Your task to perform on an android device: change the clock display to show seconds Image 0: 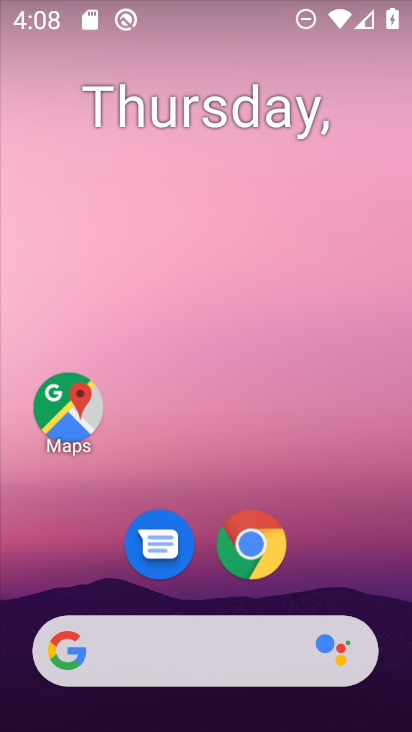
Step 0: drag from (330, 556) to (333, 217)
Your task to perform on an android device: change the clock display to show seconds Image 1: 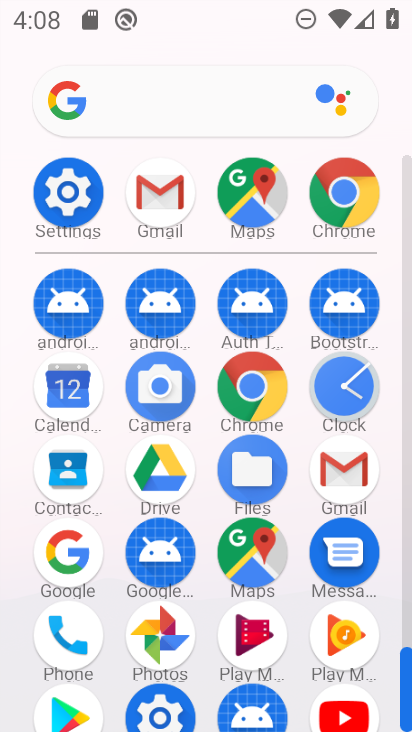
Step 1: click (332, 404)
Your task to perform on an android device: change the clock display to show seconds Image 2: 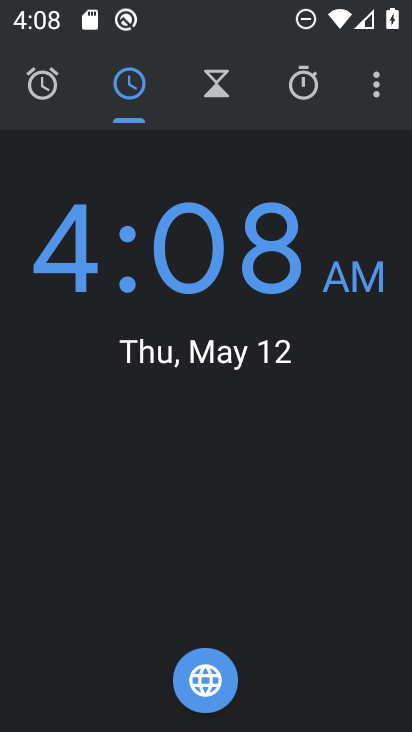
Step 2: click (375, 84)
Your task to perform on an android device: change the clock display to show seconds Image 3: 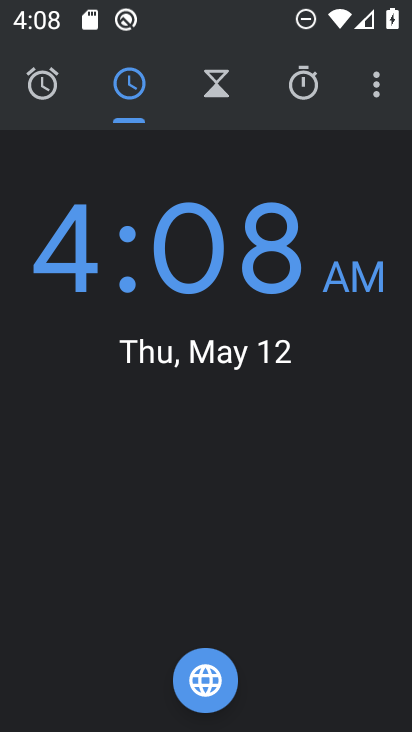
Step 3: click (381, 79)
Your task to perform on an android device: change the clock display to show seconds Image 4: 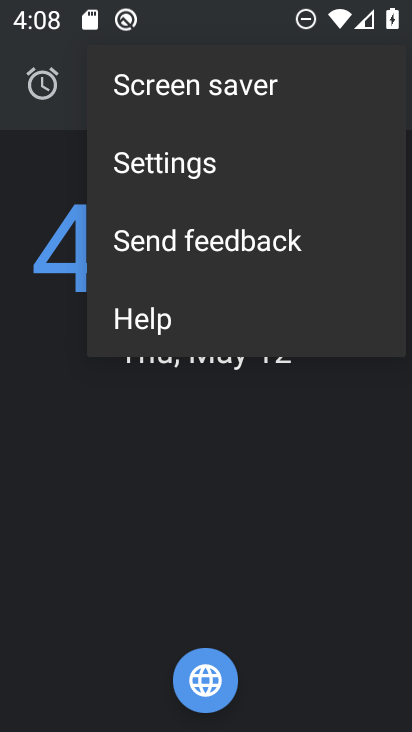
Step 4: click (269, 172)
Your task to perform on an android device: change the clock display to show seconds Image 5: 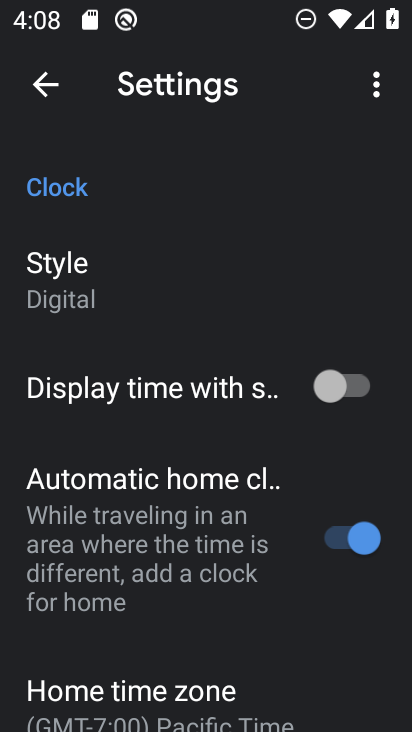
Step 5: click (63, 288)
Your task to perform on an android device: change the clock display to show seconds Image 6: 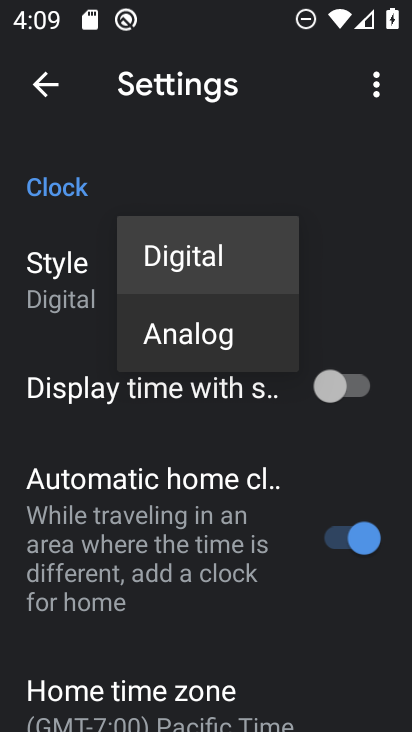
Step 6: click (180, 332)
Your task to perform on an android device: change the clock display to show seconds Image 7: 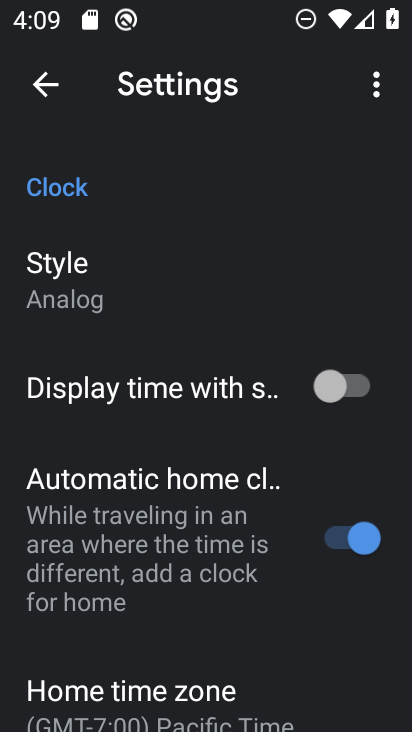
Step 7: press home button
Your task to perform on an android device: change the clock display to show seconds Image 8: 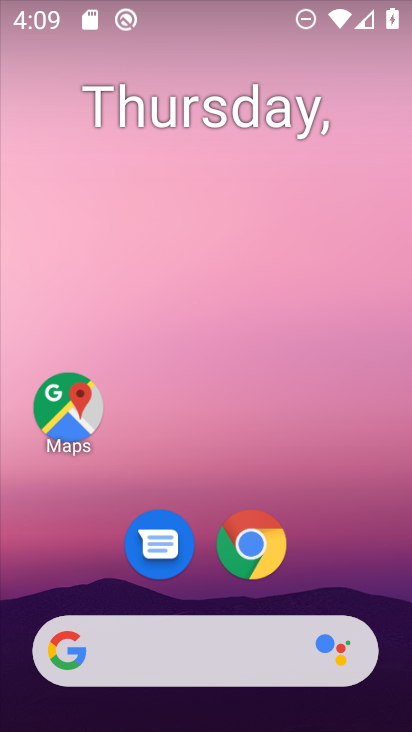
Step 8: drag from (255, 488) to (240, 167)
Your task to perform on an android device: change the clock display to show seconds Image 9: 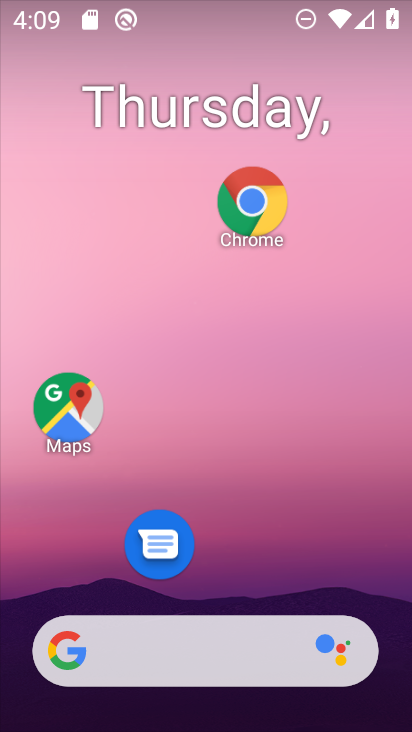
Step 9: drag from (299, 697) to (299, 305)
Your task to perform on an android device: change the clock display to show seconds Image 10: 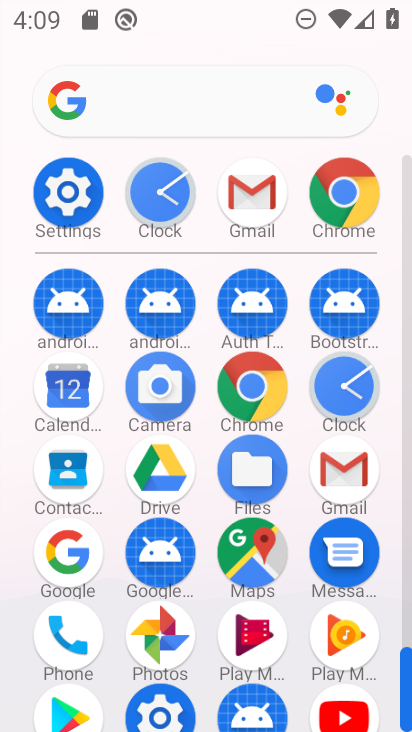
Step 10: click (141, 212)
Your task to perform on an android device: change the clock display to show seconds Image 11: 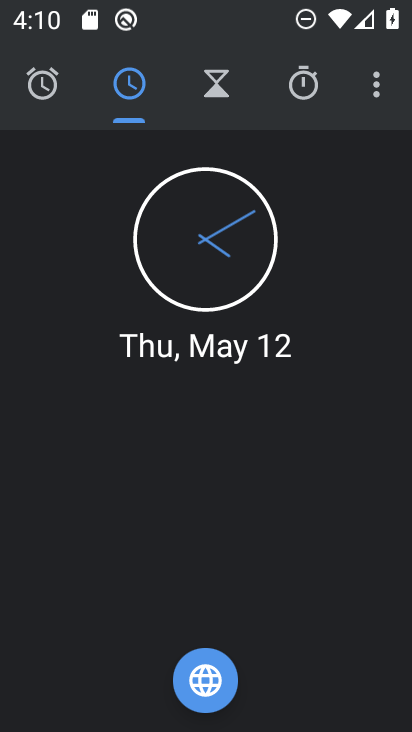
Step 11: click (373, 99)
Your task to perform on an android device: change the clock display to show seconds Image 12: 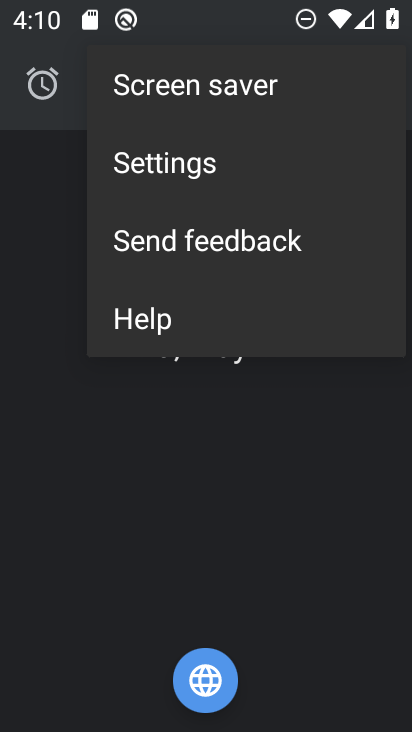
Step 12: click (280, 162)
Your task to perform on an android device: change the clock display to show seconds Image 13: 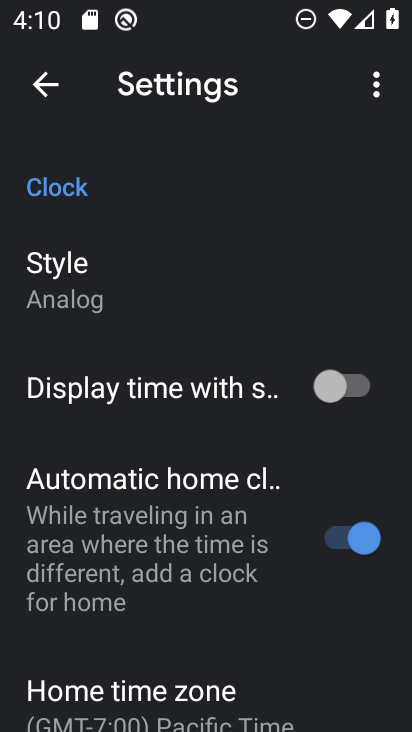
Step 13: drag from (151, 631) to (218, 301)
Your task to perform on an android device: change the clock display to show seconds Image 14: 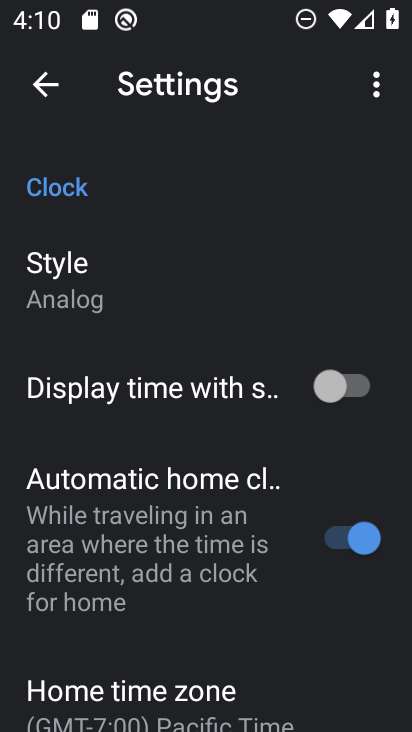
Step 14: drag from (196, 642) to (277, 173)
Your task to perform on an android device: change the clock display to show seconds Image 15: 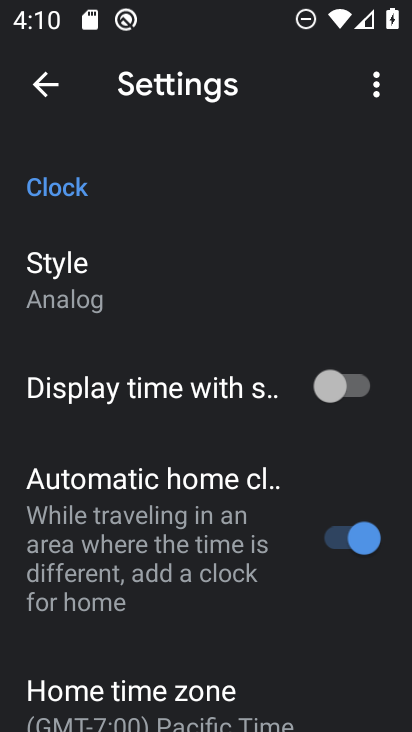
Step 15: drag from (249, 641) to (255, 244)
Your task to perform on an android device: change the clock display to show seconds Image 16: 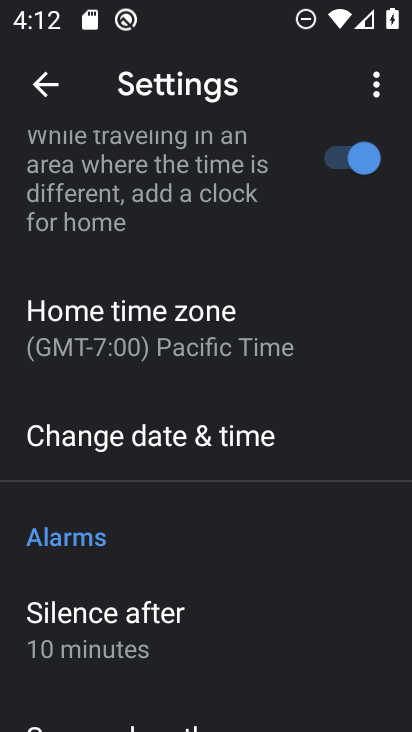
Step 16: press home button
Your task to perform on an android device: change the clock display to show seconds Image 17: 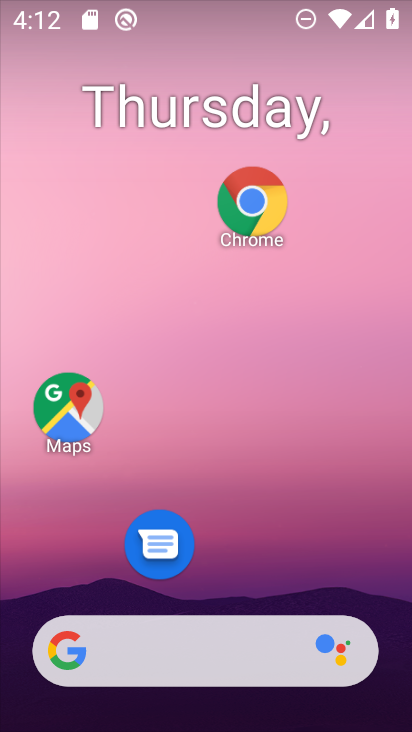
Step 17: drag from (248, 493) to (277, 77)
Your task to perform on an android device: change the clock display to show seconds Image 18: 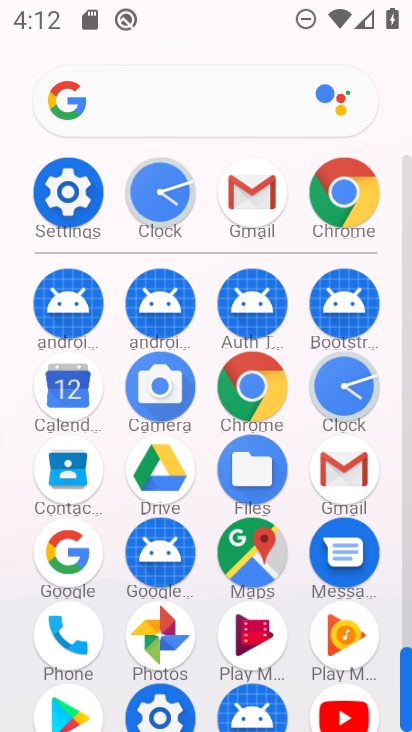
Step 18: click (173, 191)
Your task to perform on an android device: change the clock display to show seconds Image 19: 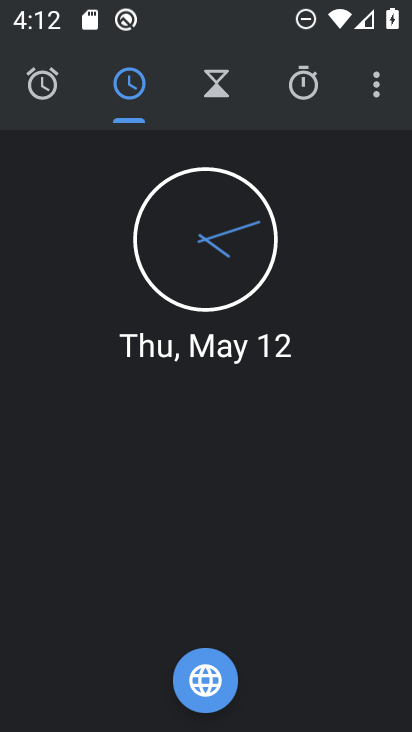
Step 19: click (379, 86)
Your task to perform on an android device: change the clock display to show seconds Image 20: 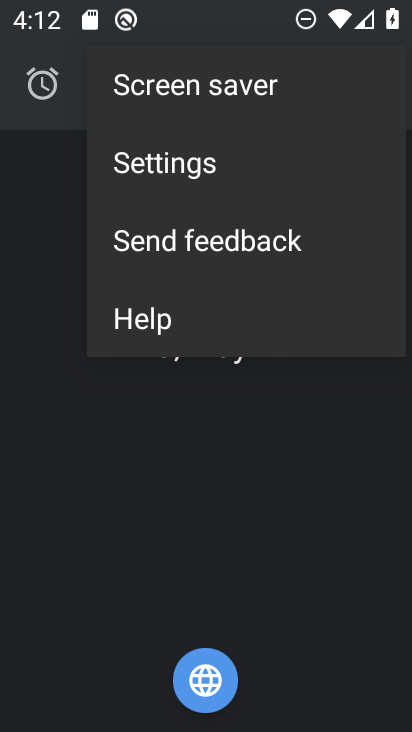
Step 20: click (283, 171)
Your task to perform on an android device: change the clock display to show seconds Image 21: 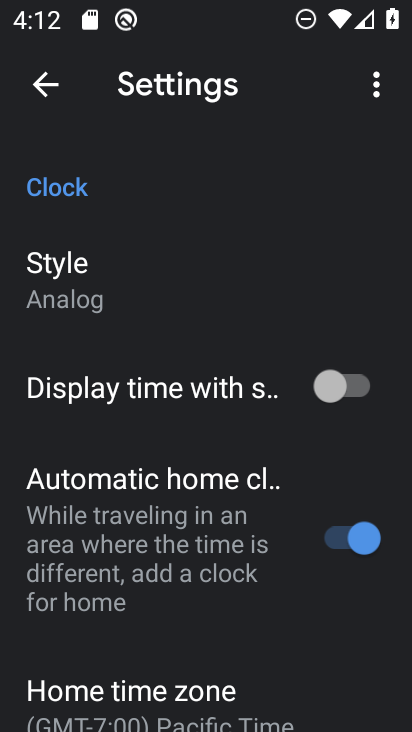
Step 21: click (111, 284)
Your task to perform on an android device: change the clock display to show seconds Image 22: 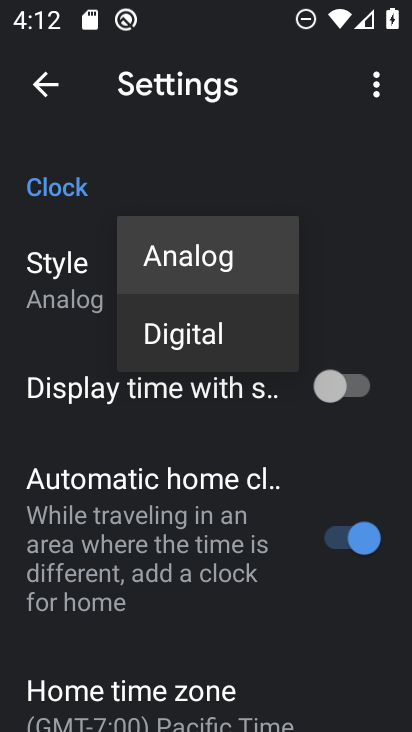
Step 22: click (166, 338)
Your task to perform on an android device: change the clock display to show seconds Image 23: 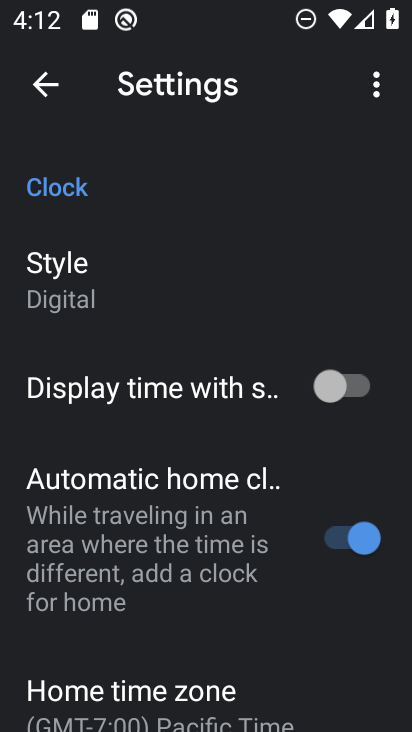
Step 23: task complete